Your task to perform on an android device: Open Yahoo.com Image 0: 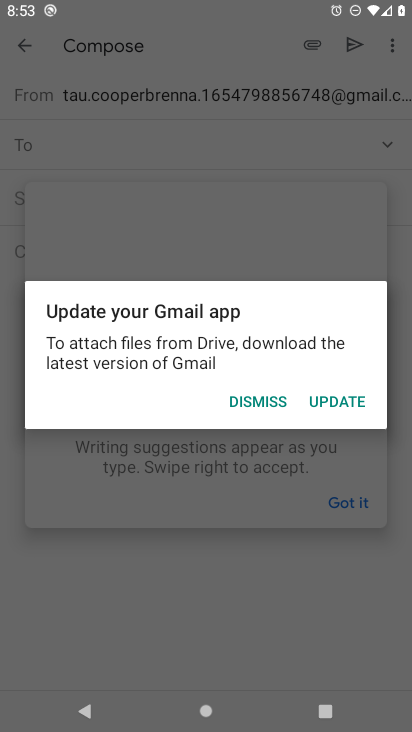
Step 0: press home button
Your task to perform on an android device: Open Yahoo.com Image 1: 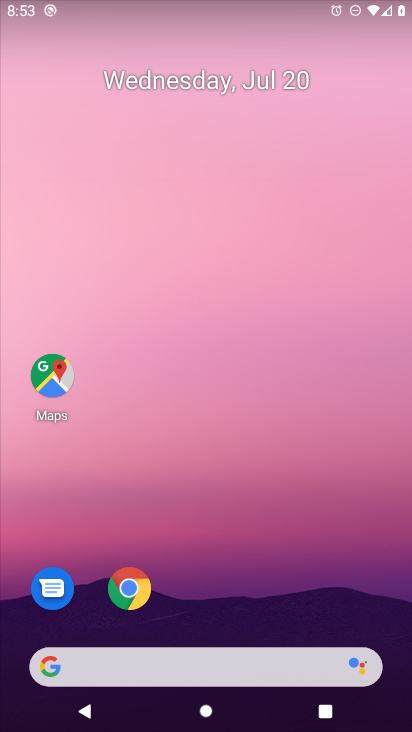
Step 1: click (103, 662)
Your task to perform on an android device: Open Yahoo.com Image 2: 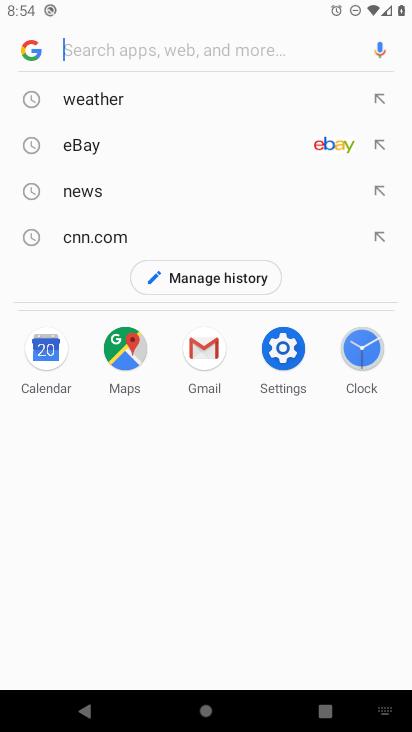
Step 2: type "Yahoo.com"
Your task to perform on an android device: Open Yahoo.com Image 3: 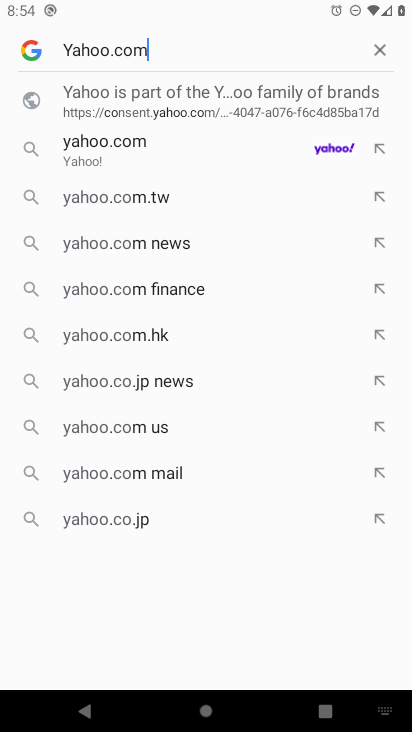
Step 3: type ""
Your task to perform on an android device: Open Yahoo.com Image 4: 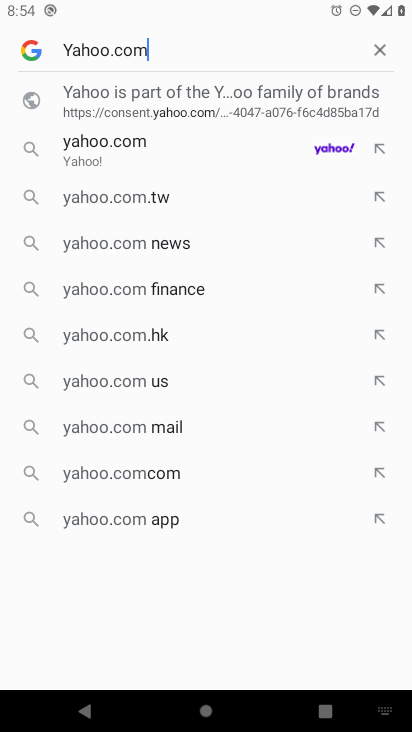
Step 4: click (147, 133)
Your task to perform on an android device: Open Yahoo.com Image 5: 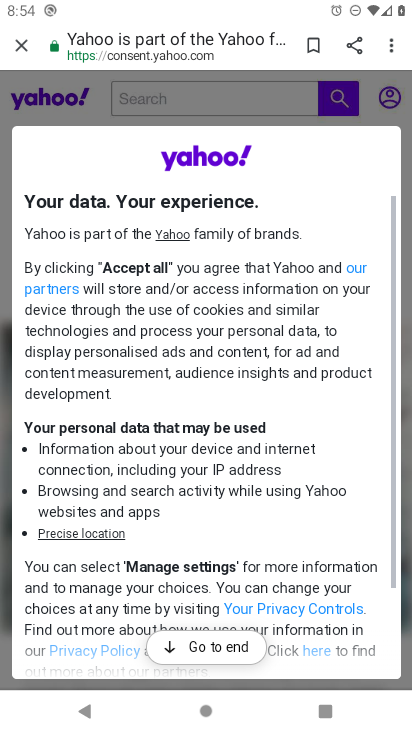
Step 5: task complete